Your task to perform on an android device: turn off location history Image 0: 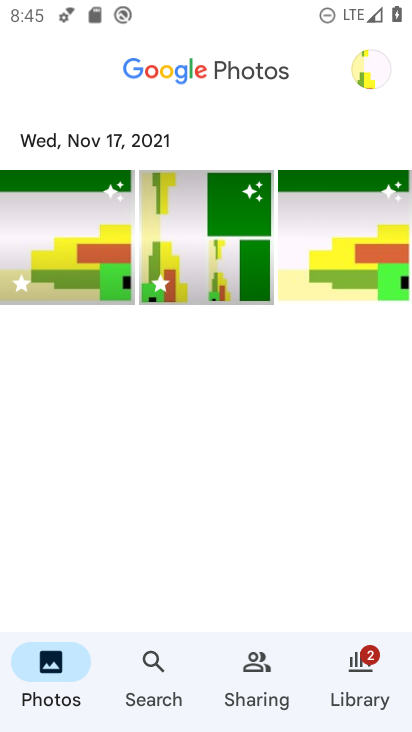
Step 0: press home button
Your task to perform on an android device: turn off location history Image 1: 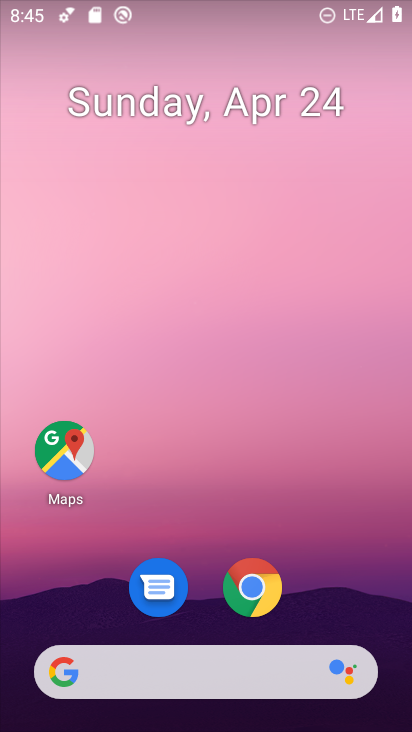
Step 1: drag from (377, 590) to (361, 198)
Your task to perform on an android device: turn off location history Image 2: 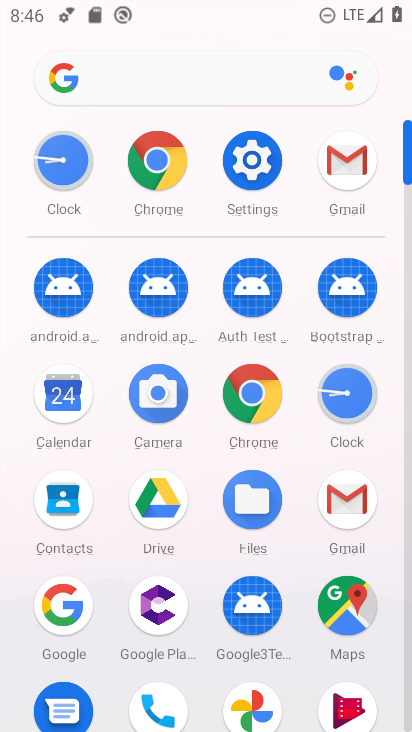
Step 2: click (258, 162)
Your task to perform on an android device: turn off location history Image 3: 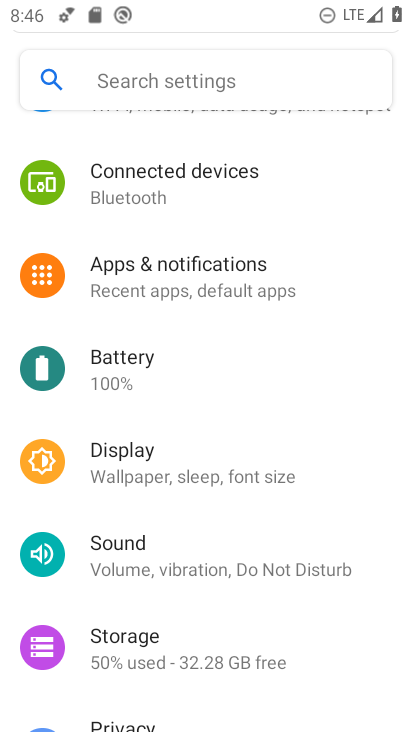
Step 3: click (157, 80)
Your task to perform on an android device: turn off location history Image 4: 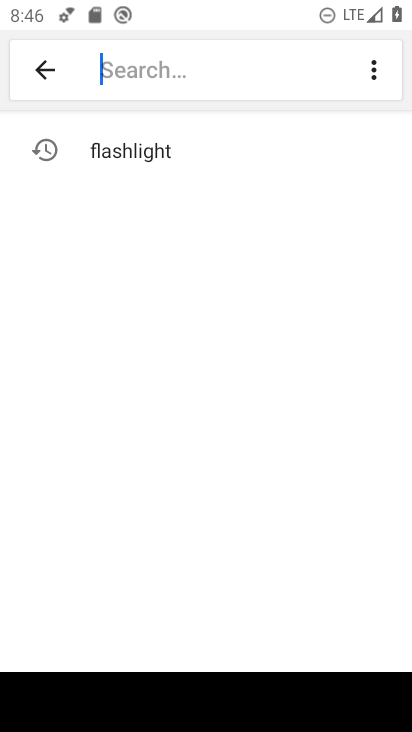
Step 4: click (35, 78)
Your task to perform on an android device: turn off location history Image 5: 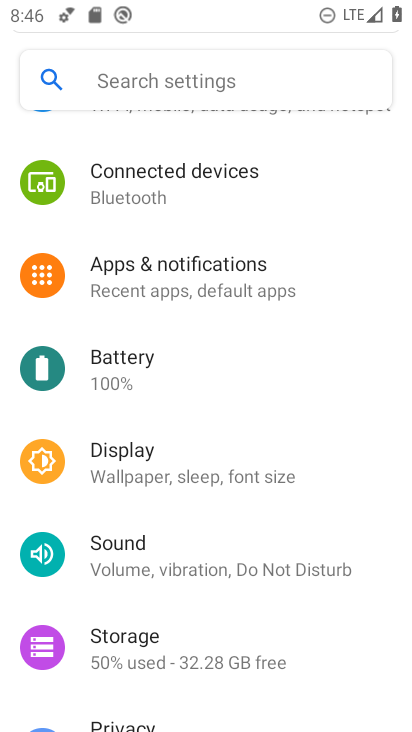
Step 5: drag from (218, 639) to (210, 376)
Your task to perform on an android device: turn off location history Image 6: 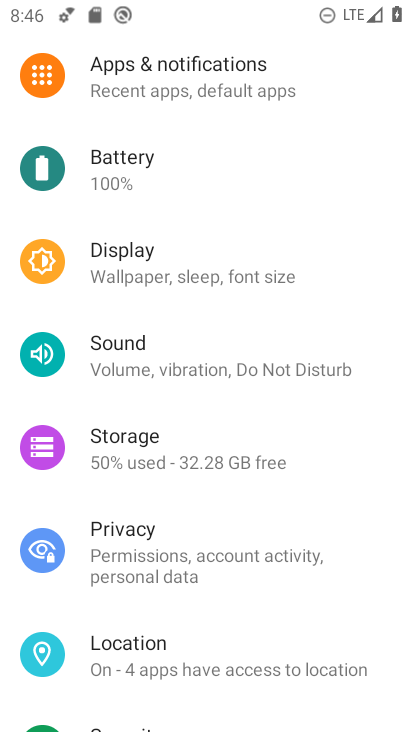
Step 6: click (162, 642)
Your task to perform on an android device: turn off location history Image 7: 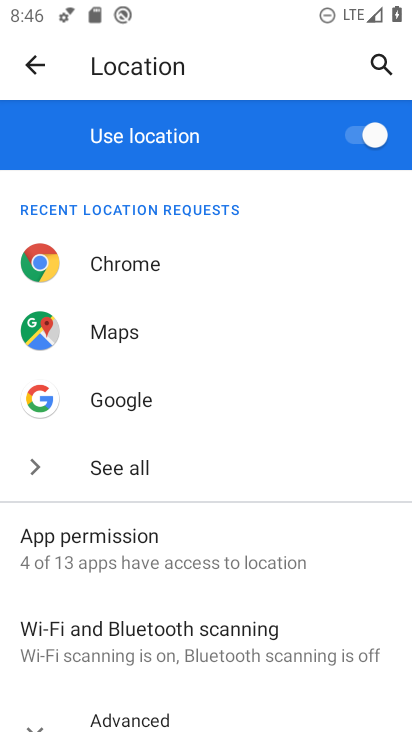
Step 7: drag from (244, 690) to (229, 400)
Your task to perform on an android device: turn off location history Image 8: 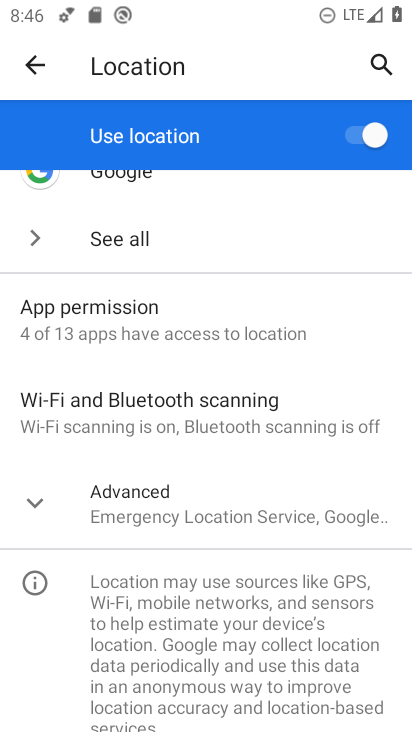
Step 8: click (164, 492)
Your task to perform on an android device: turn off location history Image 9: 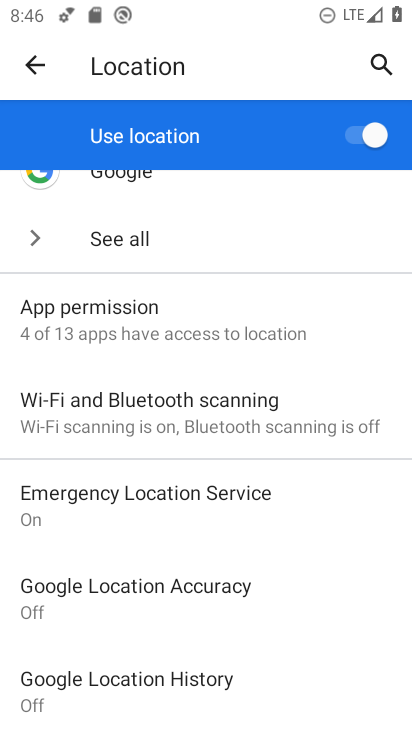
Step 9: task complete